Your task to perform on an android device: Is it going to rain this weekend? Image 0: 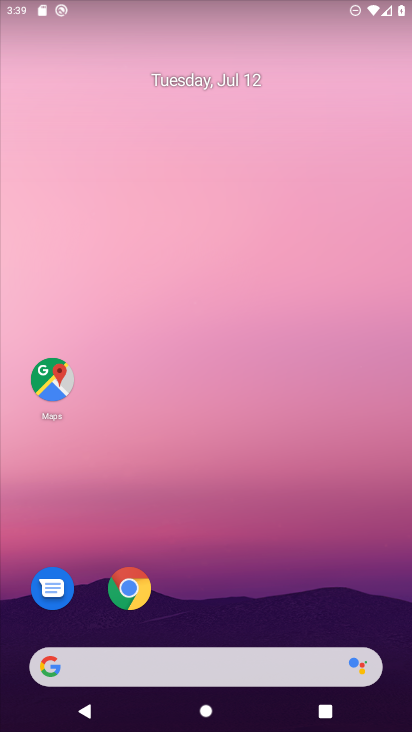
Step 0: click (273, 81)
Your task to perform on an android device: Is it going to rain this weekend? Image 1: 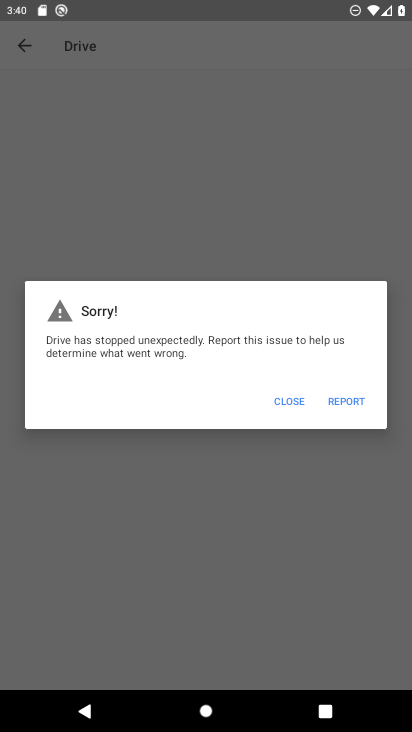
Step 1: press home button
Your task to perform on an android device: Is it going to rain this weekend? Image 2: 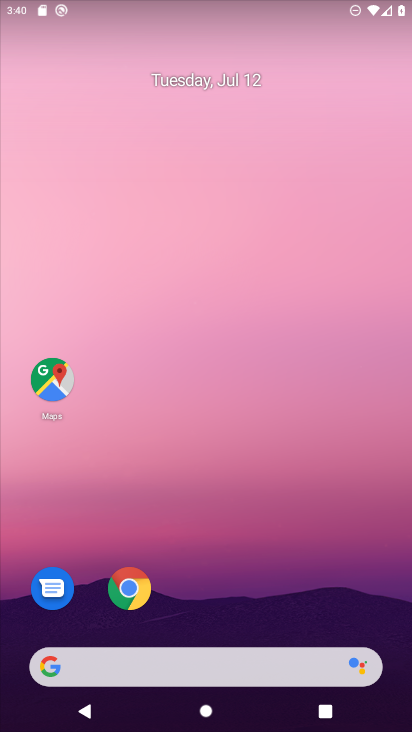
Step 2: drag from (276, 628) to (253, 82)
Your task to perform on an android device: Is it going to rain this weekend? Image 3: 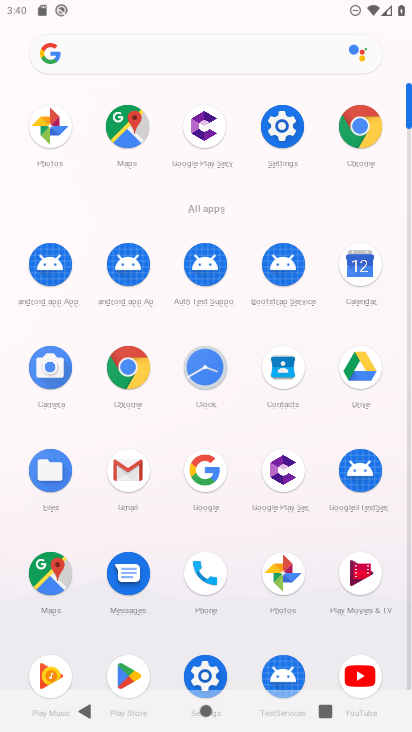
Step 3: click (363, 121)
Your task to perform on an android device: Is it going to rain this weekend? Image 4: 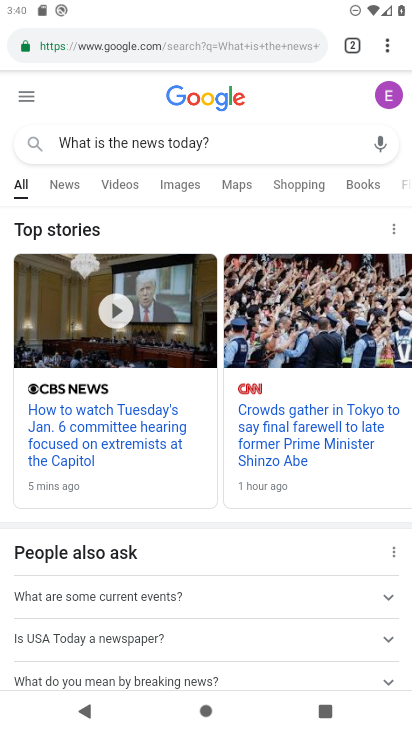
Step 4: click (202, 48)
Your task to perform on an android device: Is it going to rain this weekend? Image 5: 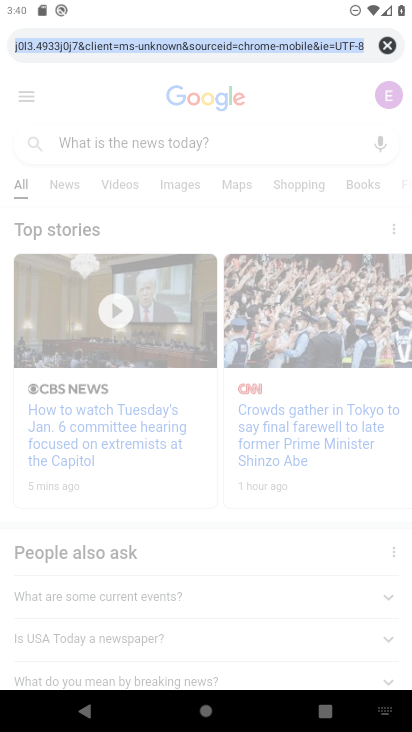
Step 5: type "Is it going to rain this weekend?"
Your task to perform on an android device: Is it going to rain this weekend? Image 6: 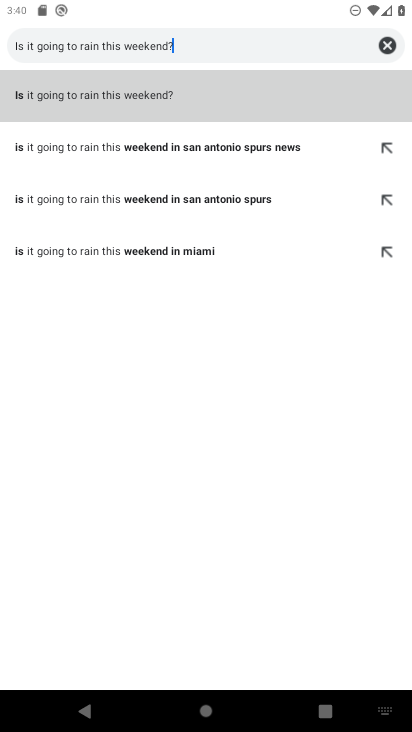
Step 6: click (84, 91)
Your task to perform on an android device: Is it going to rain this weekend? Image 7: 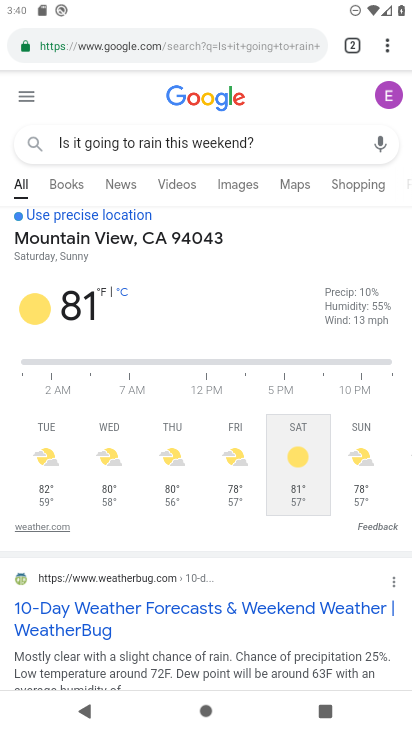
Step 7: task complete